Your task to perform on an android device: check data usage Image 0: 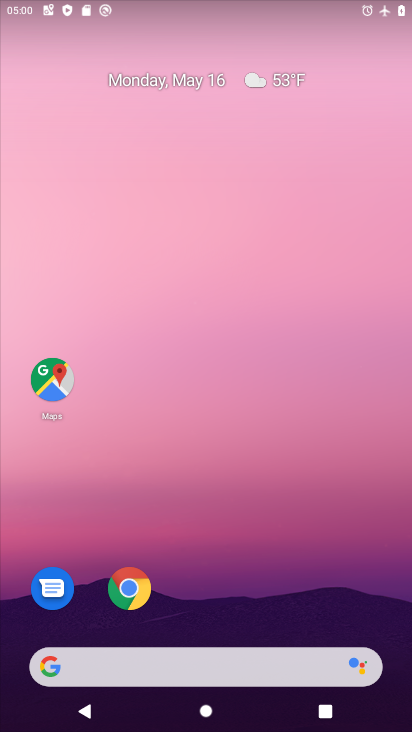
Step 0: drag from (187, 509) to (208, 12)
Your task to perform on an android device: check data usage Image 1: 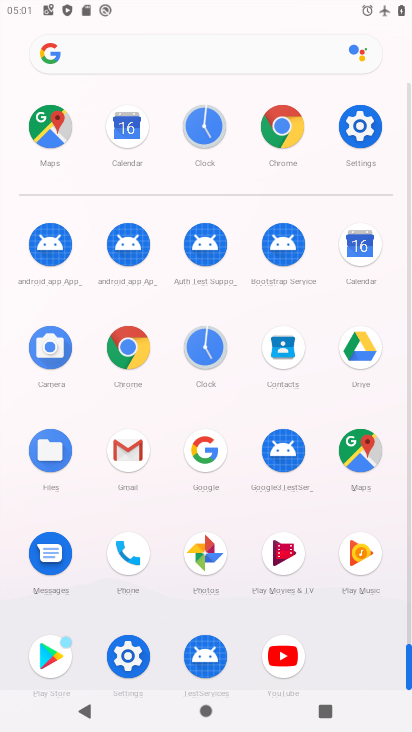
Step 1: click (126, 654)
Your task to perform on an android device: check data usage Image 2: 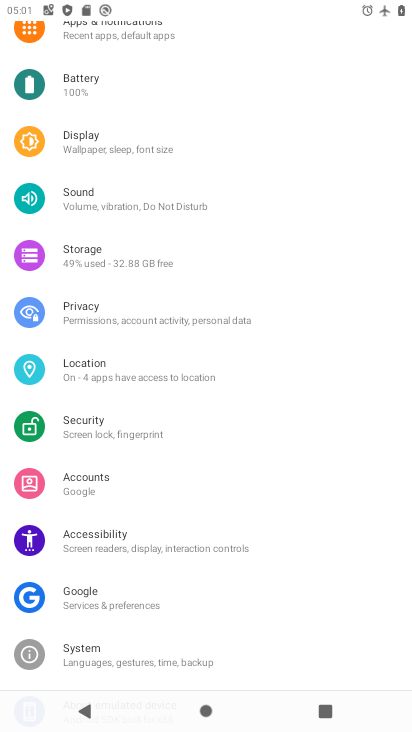
Step 2: drag from (219, 120) to (193, 536)
Your task to perform on an android device: check data usage Image 3: 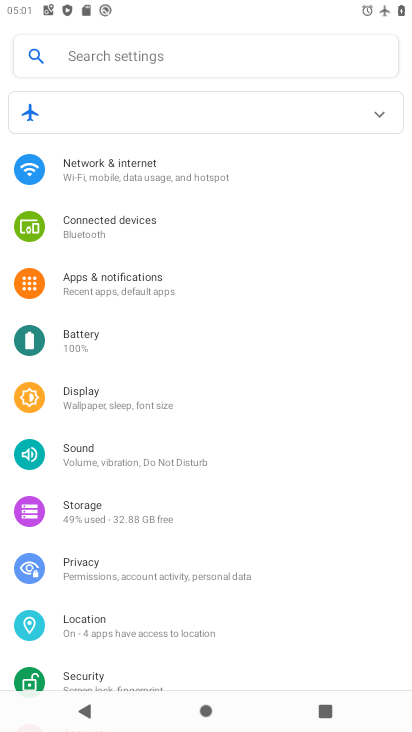
Step 3: click (153, 170)
Your task to perform on an android device: check data usage Image 4: 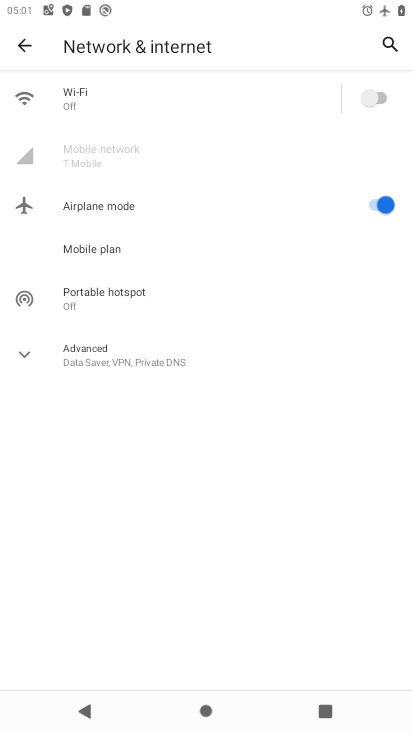
Step 4: click (93, 361)
Your task to perform on an android device: check data usage Image 5: 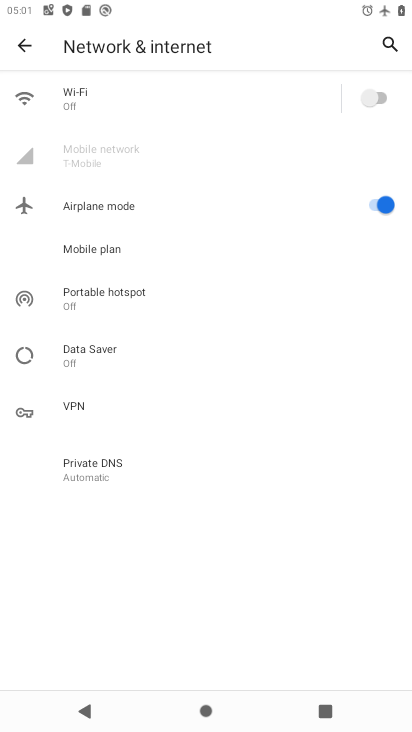
Step 5: task complete